Your task to perform on an android device: show emergency info Image 0: 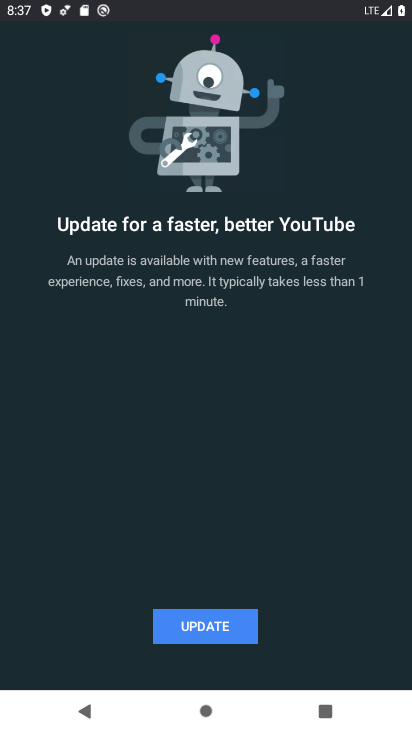
Step 0: press home button
Your task to perform on an android device: show emergency info Image 1: 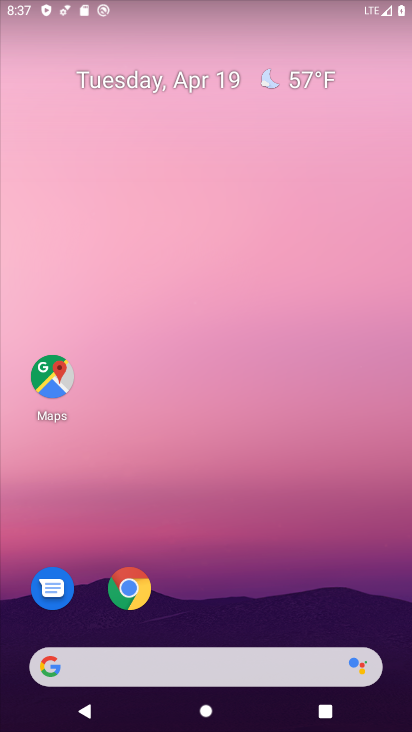
Step 1: drag from (220, 613) to (340, 46)
Your task to perform on an android device: show emergency info Image 2: 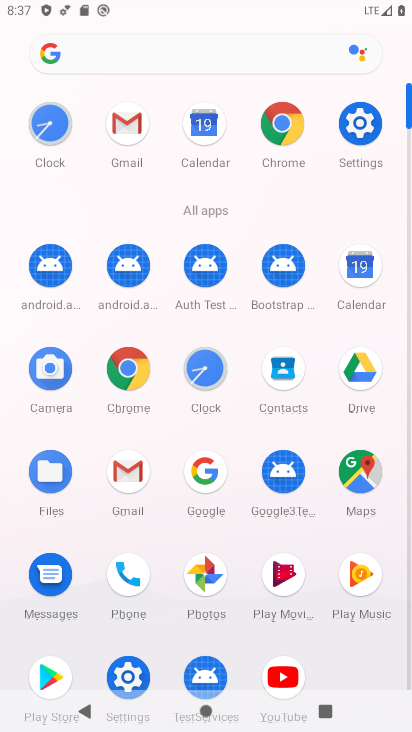
Step 2: click (362, 122)
Your task to perform on an android device: show emergency info Image 3: 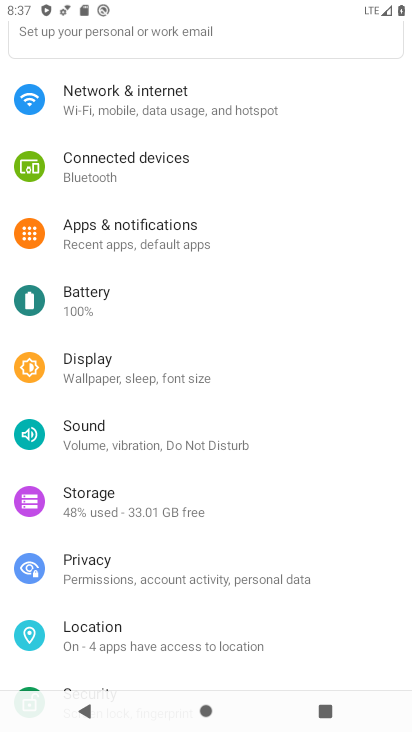
Step 3: drag from (220, 493) to (208, 383)
Your task to perform on an android device: show emergency info Image 4: 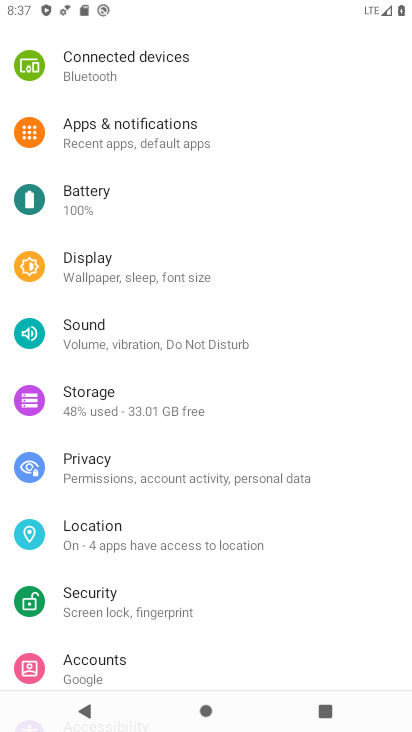
Step 4: drag from (169, 524) to (209, 387)
Your task to perform on an android device: show emergency info Image 5: 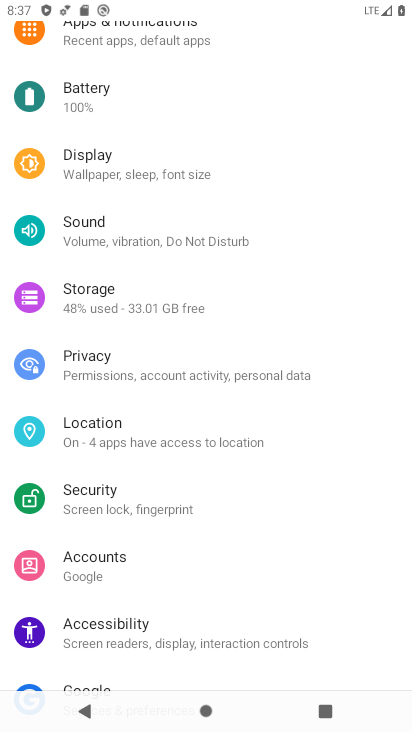
Step 5: drag from (188, 601) to (213, 445)
Your task to perform on an android device: show emergency info Image 6: 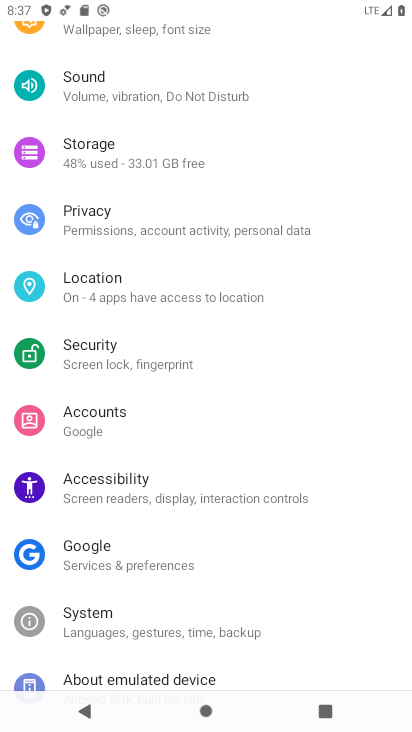
Step 6: drag from (158, 608) to (183, 439)
Your task to perform on an android device: show emergency info Image 7: 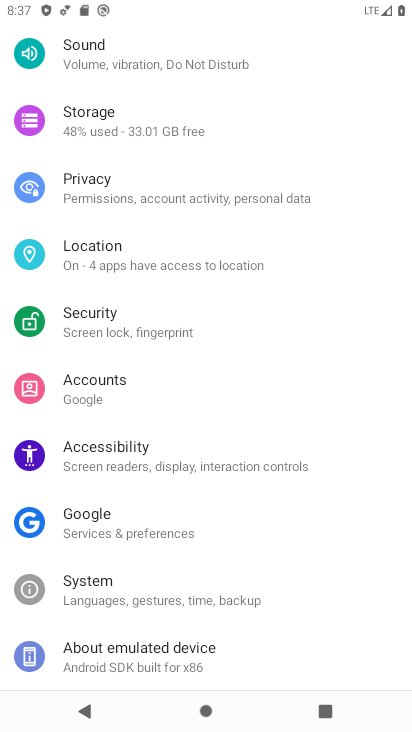
Step 7: click (145, 645)
Your task to perform on an android device: show emergency info Image 8: 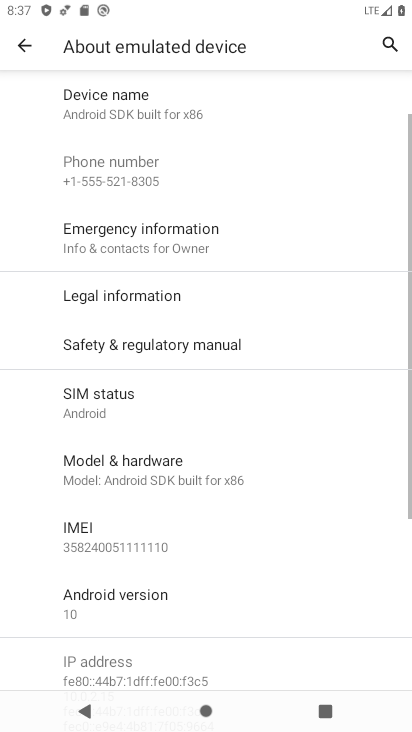
Step 8: click (157, 245)
Your task to perform on an android device: show emergency info Image 9: 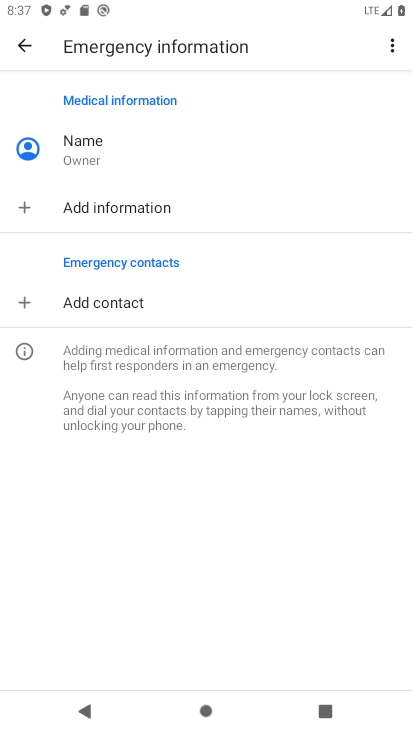
Step 9: task complete